Your task to perform on an android device: Open Google Chrome and click the shortcut for Amazon.com Image 0: 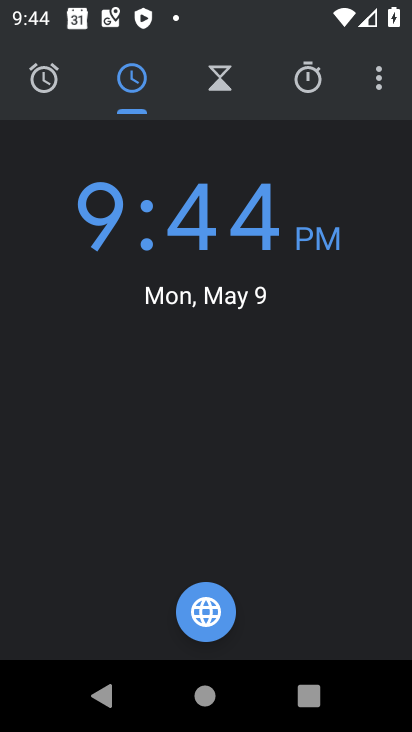
Step 0: press back button
Your task to perform on an android device: Open Google Chrome and click the shortcut for Amazon.com Image 1: 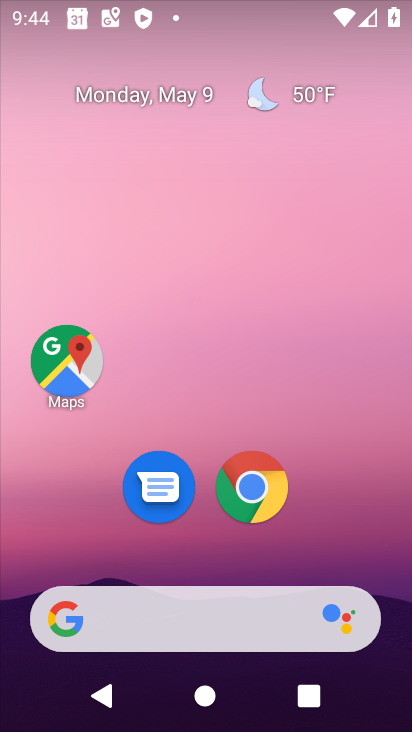
Step 1: click (259, 490)
Your task to perform on an android device: Open Google Chrome and click the shortcut for Amazon.com Image 2: 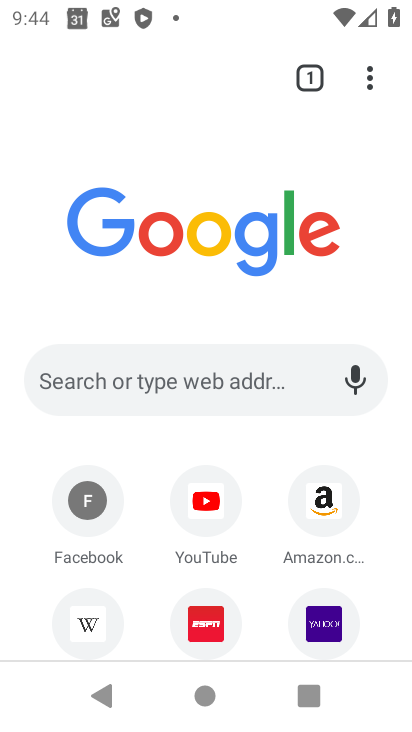
Step 2: click (322, 496)
Your task to perform on an android device: Open Google Chrome and click the shortcut for Amazon.com Image 3: 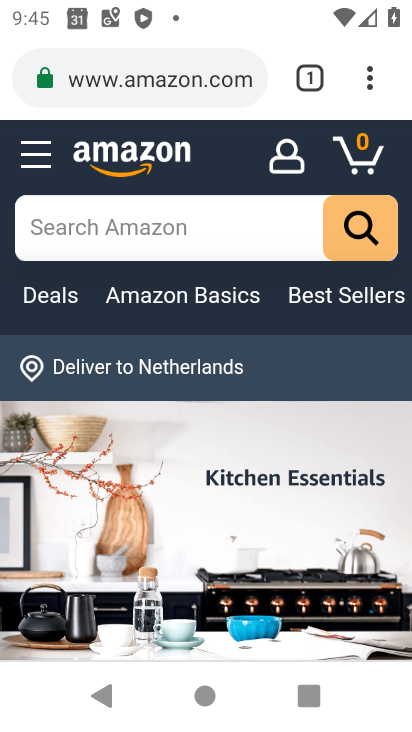
Step 3: task complete